Your task to perform on an android device: Go to Google Image 0: 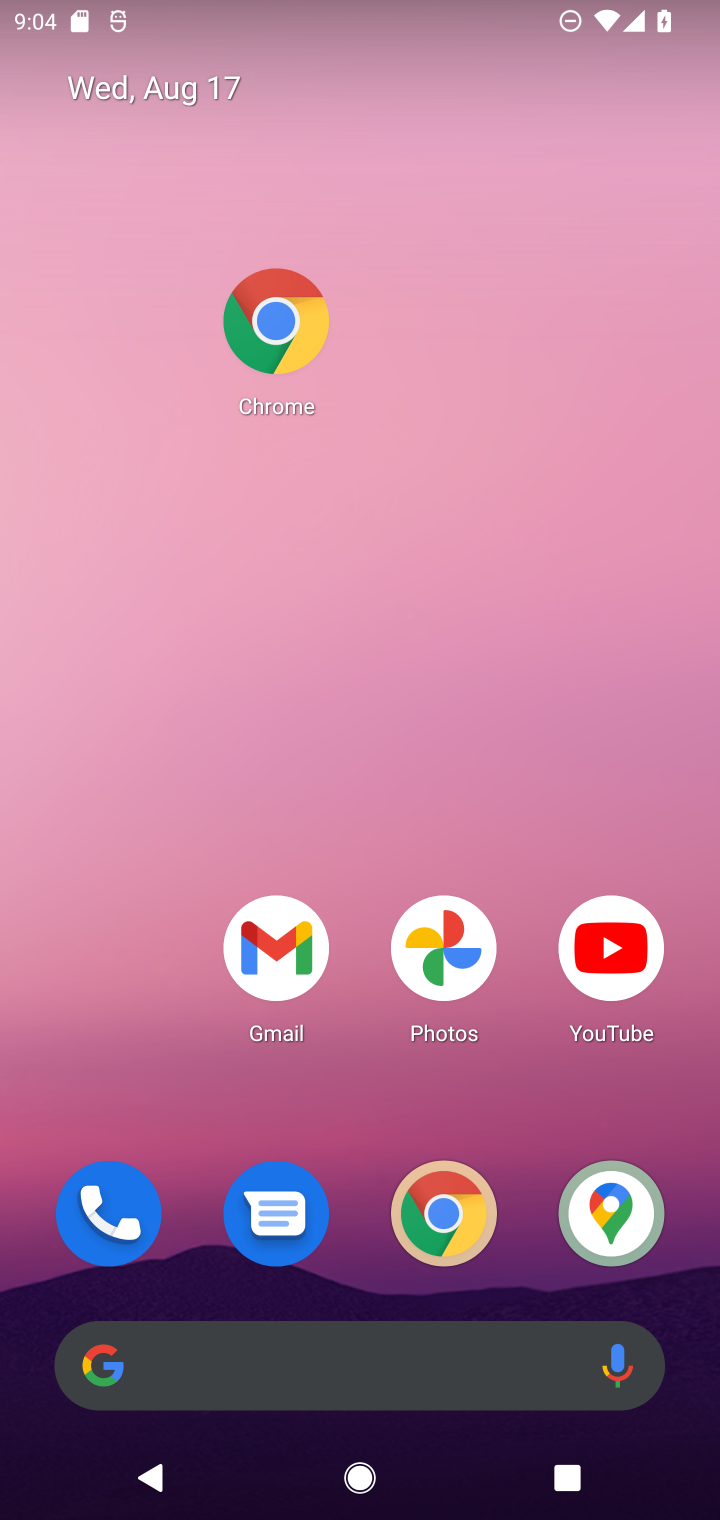
Step 0: click (444, 1231)
Your task to perform on an android device: Go to Google Image 1: 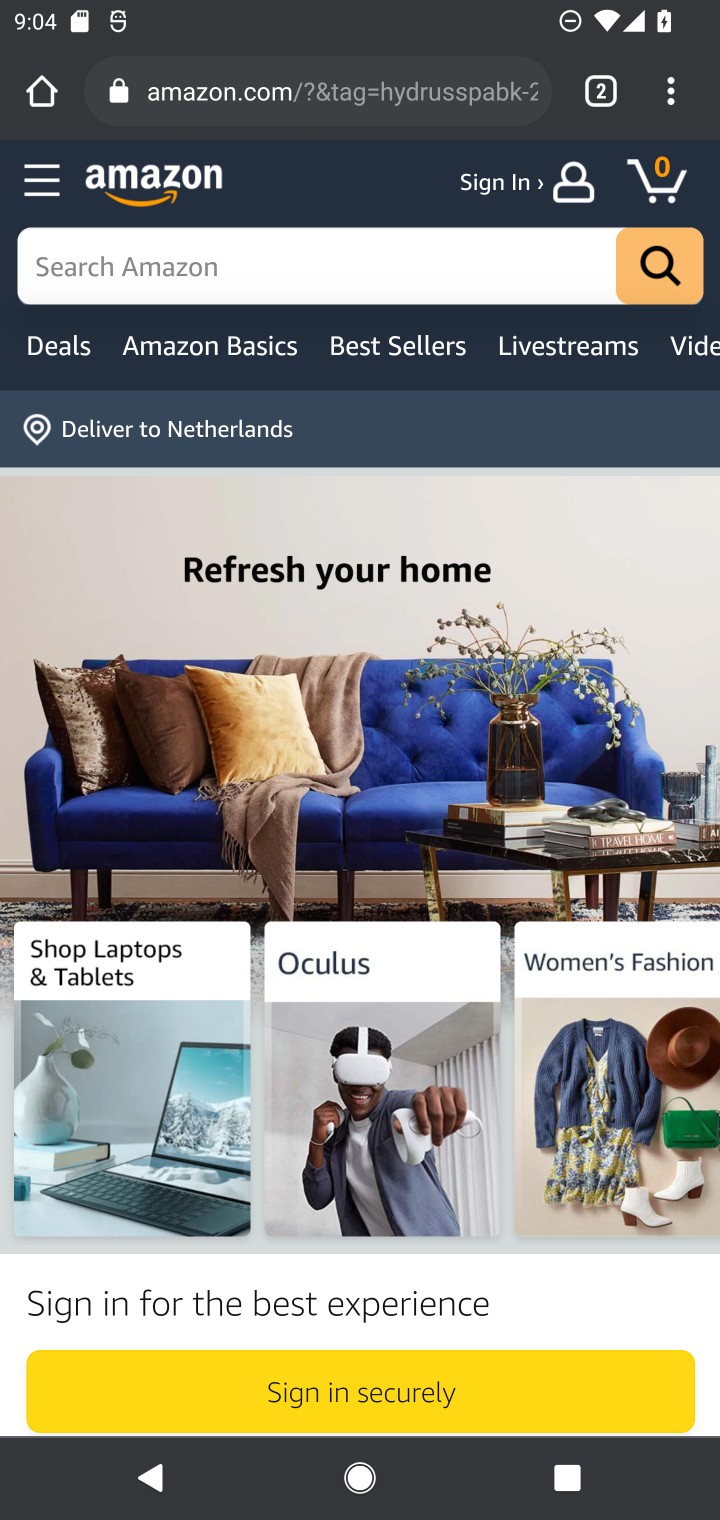
Step 1: click (387, 125)
Your task to perform on an android device: Go to Google Image 2: 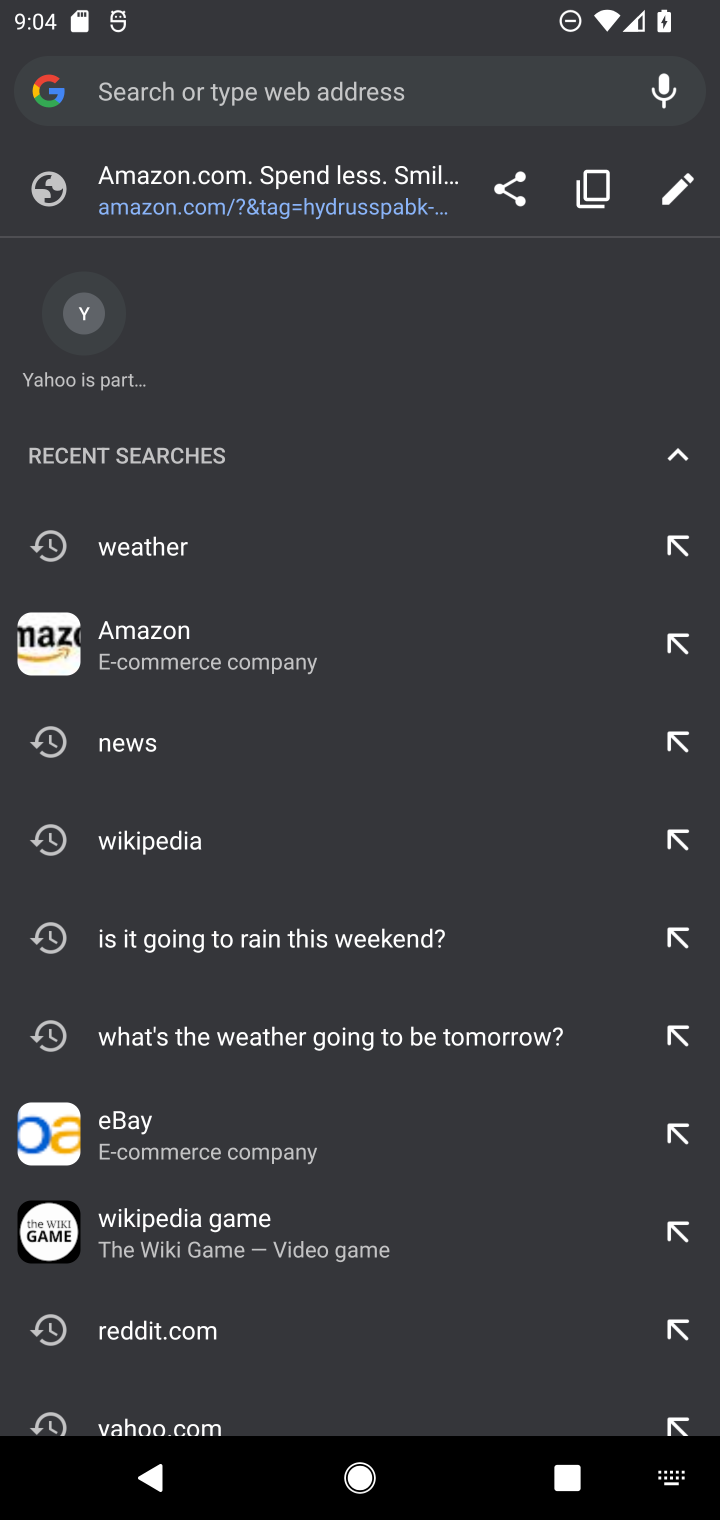
Step 2: type "google"
Your task to perform on an android device: Go to Google Image 3: 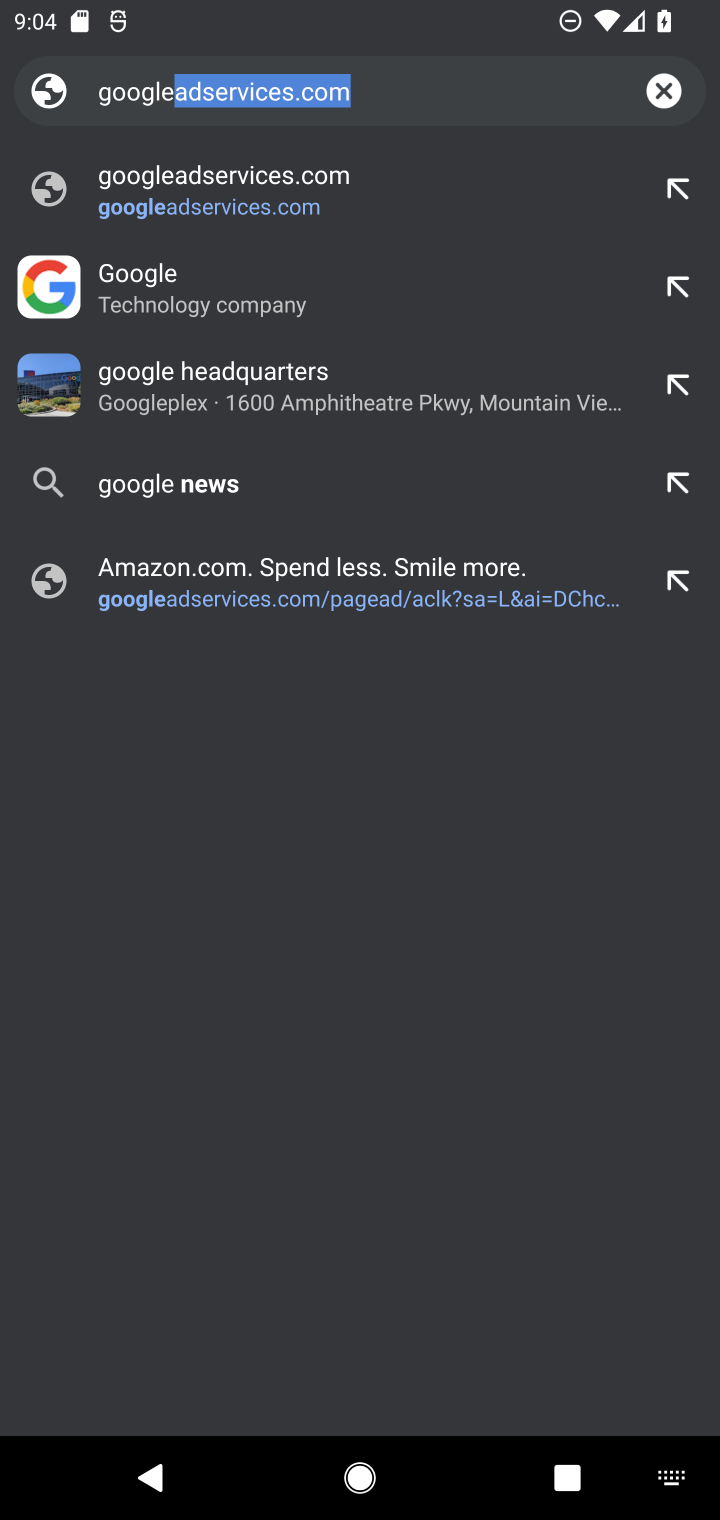
Step 3: click (264, 210)
Your task to perform on an android device: Go to Google Image 4: 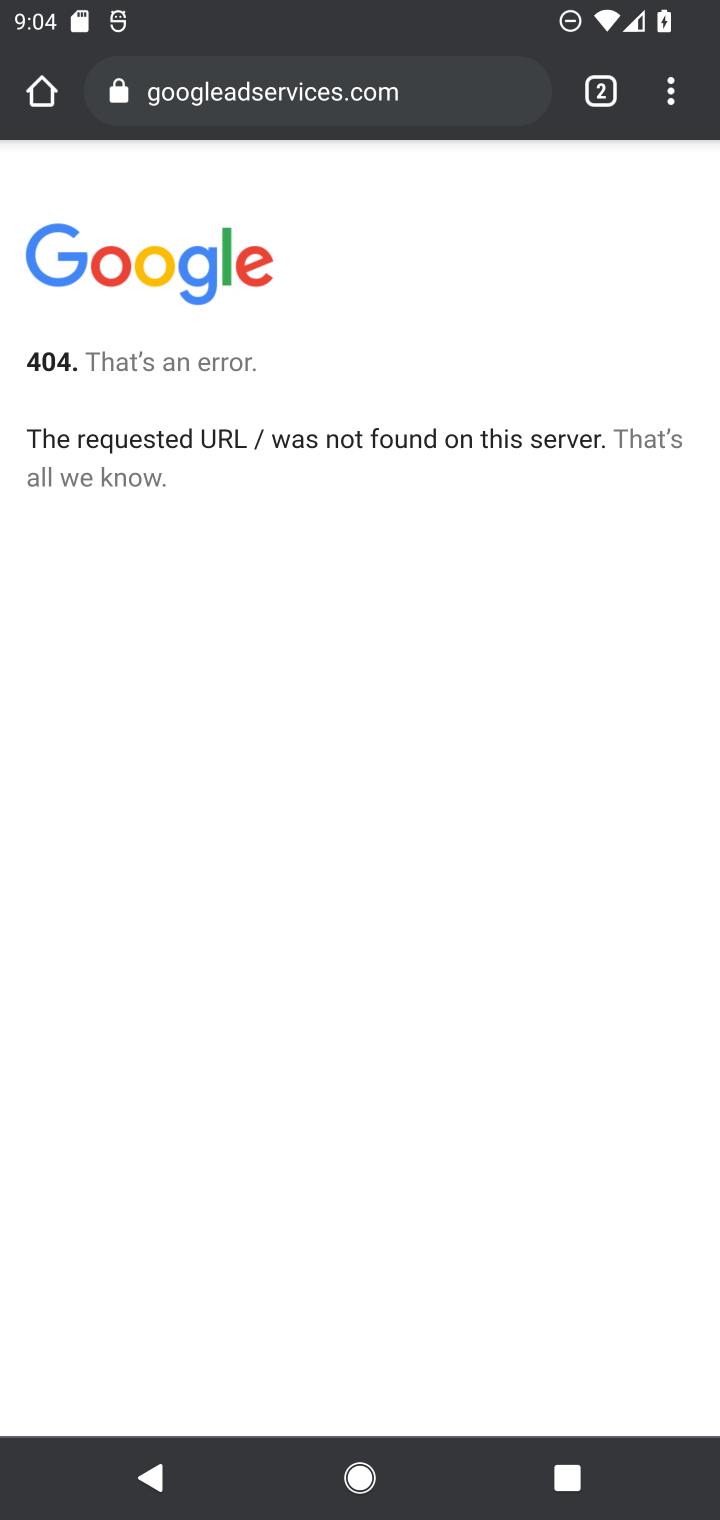
Step 4: task complete